Your task to perform on an android device: Go to network settings Image 0: 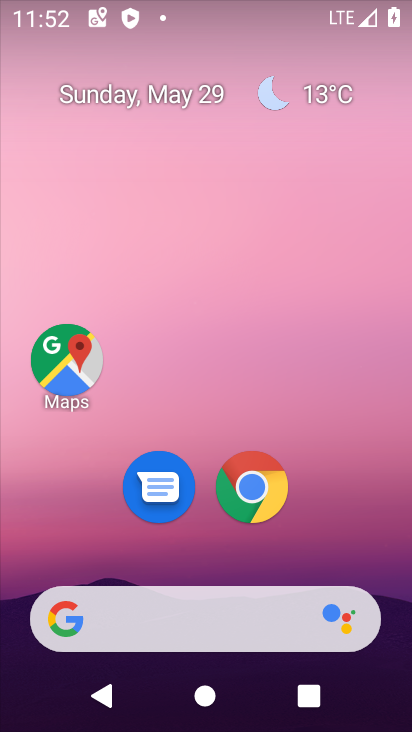
Step 0: drag from (386, 558) to (352, 91)
Your task to perform on an android device: Go to network settings Image 1: 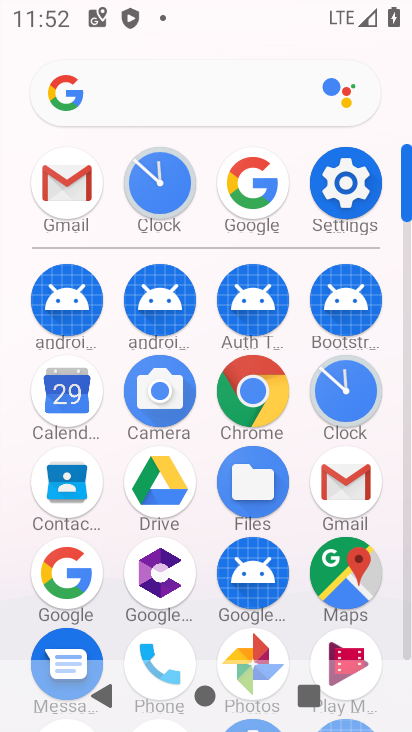
Step 1: click (342, 179)
Your task to perform on an android device: Go to network settings Image 2: 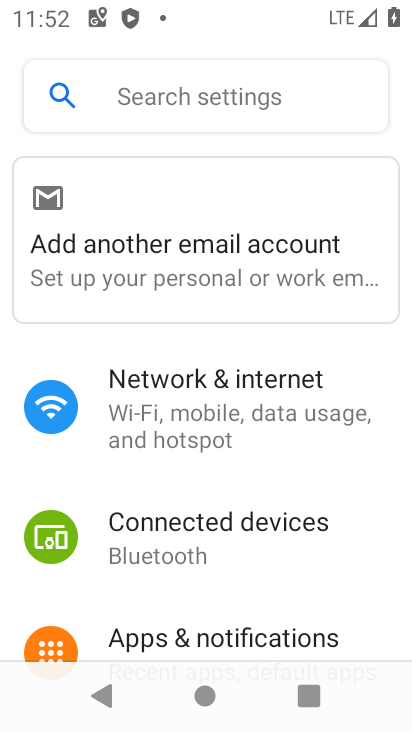
Step 2: click (122, 393)
Your task to perform on an android device: Go to network settings Image 3: 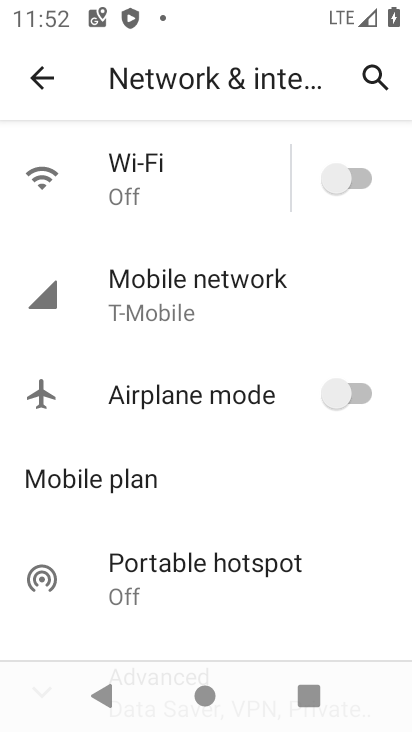
Step 3: task complete